Your task to perform on an android device: Open calendar and show me the third week of next month Image 0: 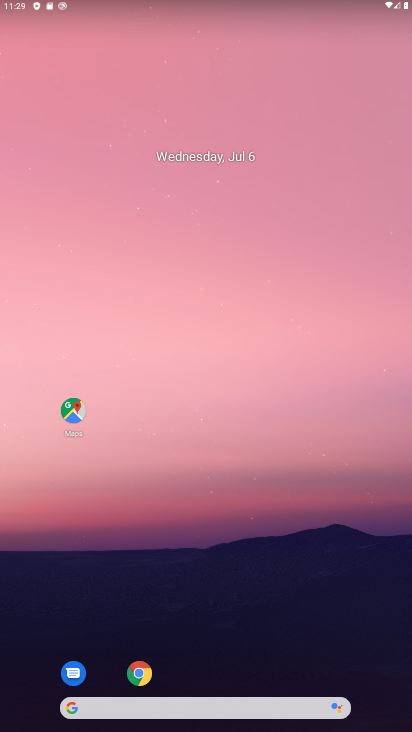
Step 0: drag from (236, 628) to (102, 31)
Your task to perform on an android device: Open calendar and show me the third week of next month Image 1: 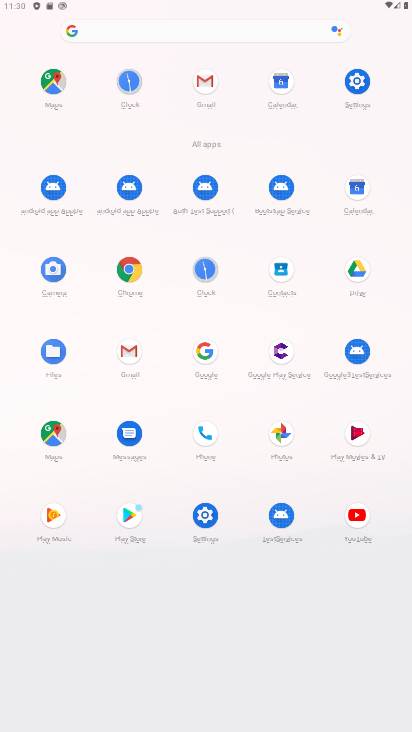
Step 1: click (353, 180)
Your task to perform on an android device: Open calendar and show me the third week of next month Image 2: 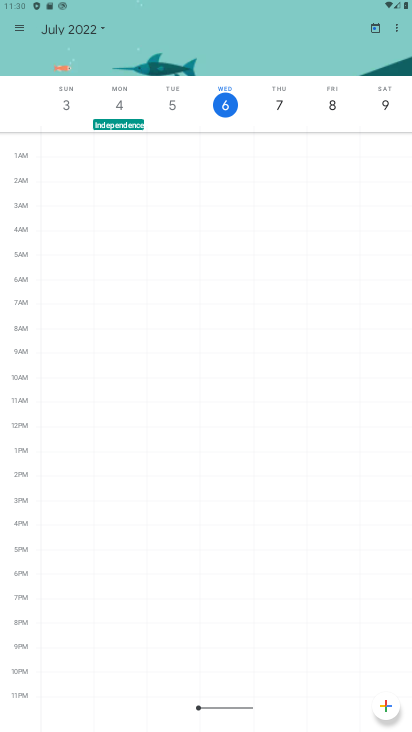
Step 2: click (18, 25)
Your task to perform on an android device: Open calendar and show me the third week of next month Image 3: 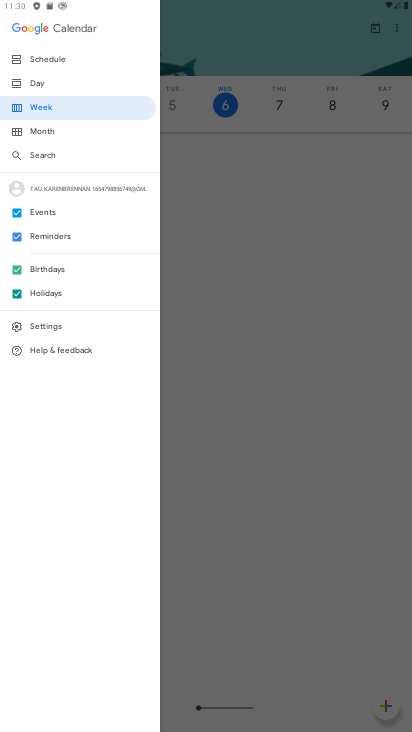
Step 3: click (34, 104)
Your task to perform on an android device: Open calendar and show me the third week of next month Image 4: 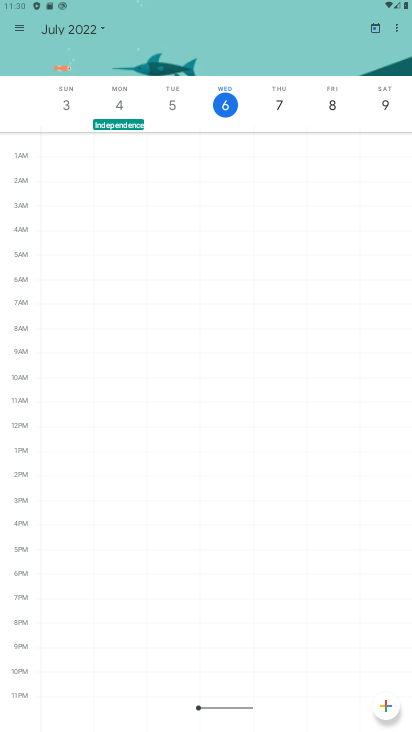
Step 4: click (100, 35)
Your task to perform on an android device: Open calendar and show me the third week of next month Image 5: 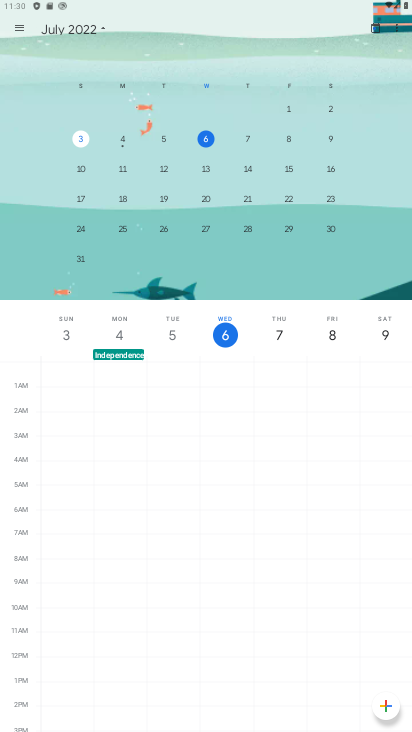
Step 5: drag from (323, 158) to (55, 106)
Your task to perform on an android device: Open calendar and show me the third week of next month Image 6: 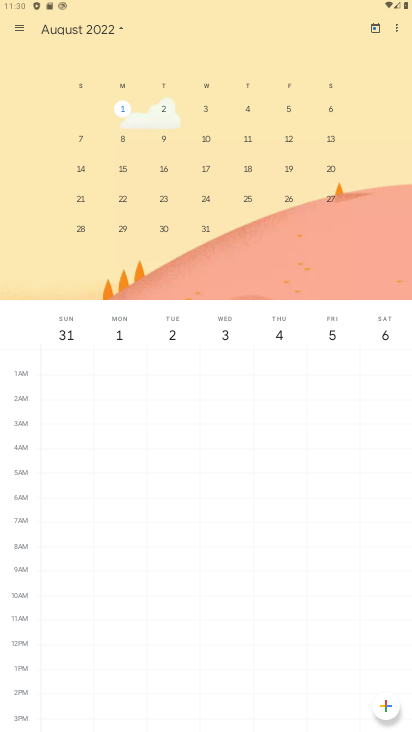
Step 6: click (163, 167)
Your task to perform on an android device: Open calendar and show me the third week of next month Image 7: 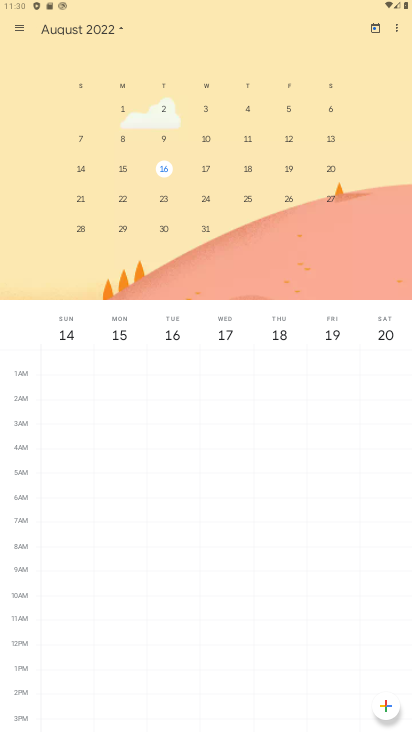
Step 7: task complete